Your task to perform on an android device: add a contact Image 0: 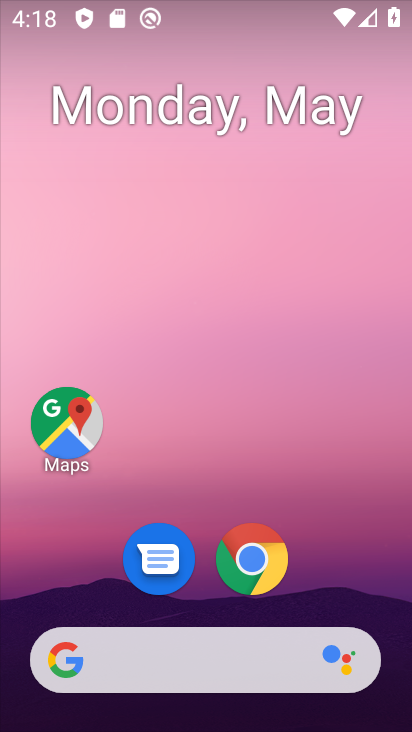
Step 0: drag from (360, 421) to (394, 2)
Your task to perform on an android device: add a contact Image 1: 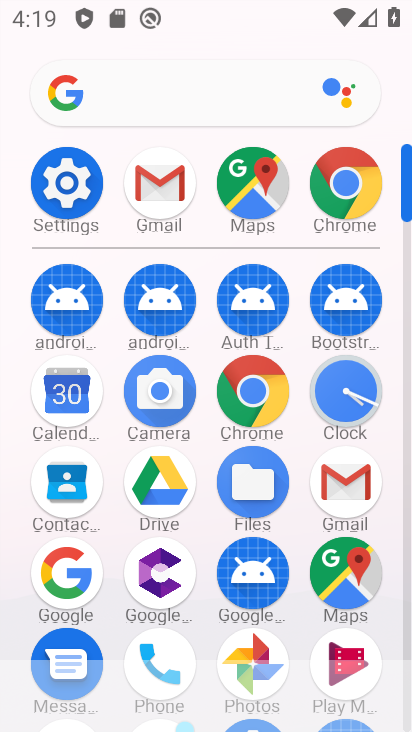
Step 1: click (61, 488)
Your task to perform on an android device: add a contact Image 2: 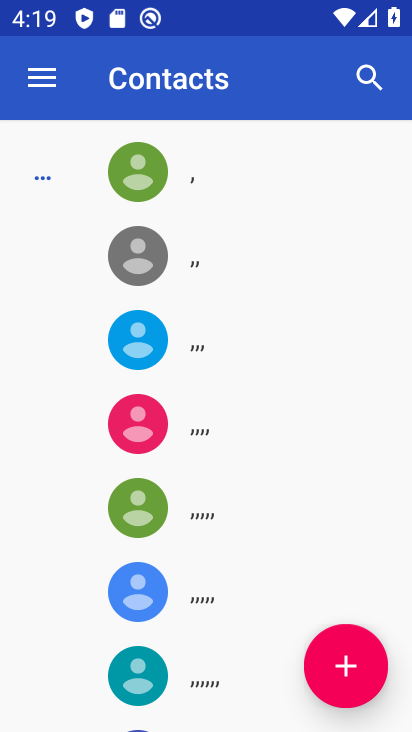
Step 2: click (357, 684)
Your task to perform on an android device: add a contact Image 3: 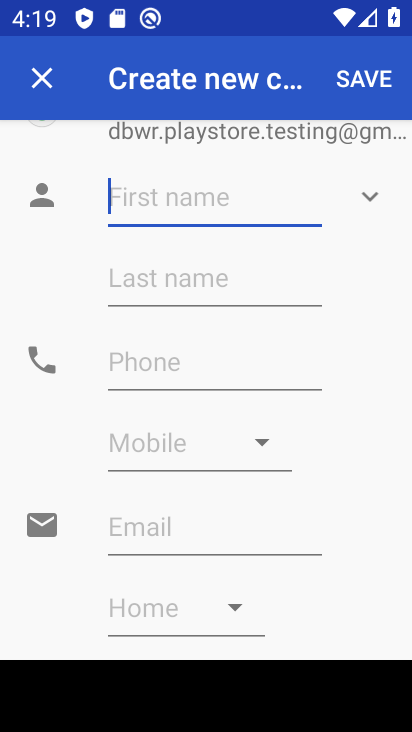
Step 3: type "jhfyjdthdh"
Your task to perform on an android device: add a contact Image 4: 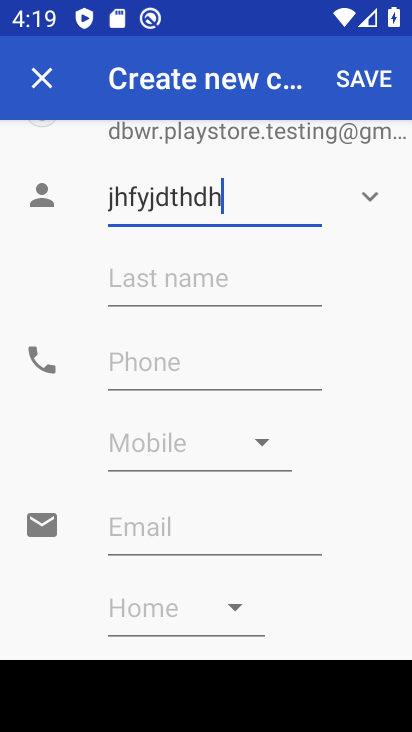
Step 4: click (165, 374)
Your task to perform on an android device: add a contact Image 5: 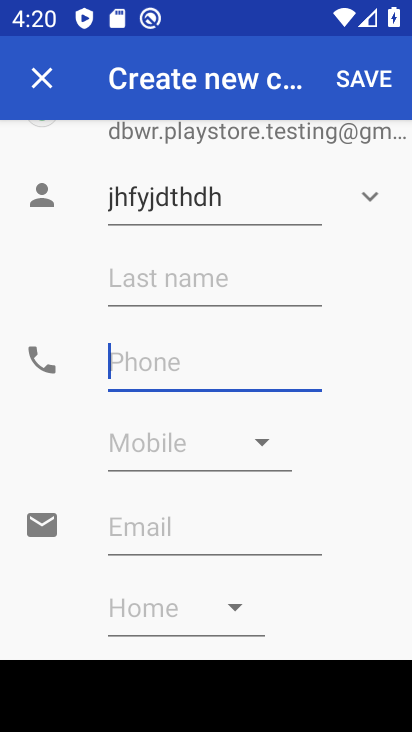
Step 5: type "98765566788"
Your task to perform on an android device: add a contact Image 6: 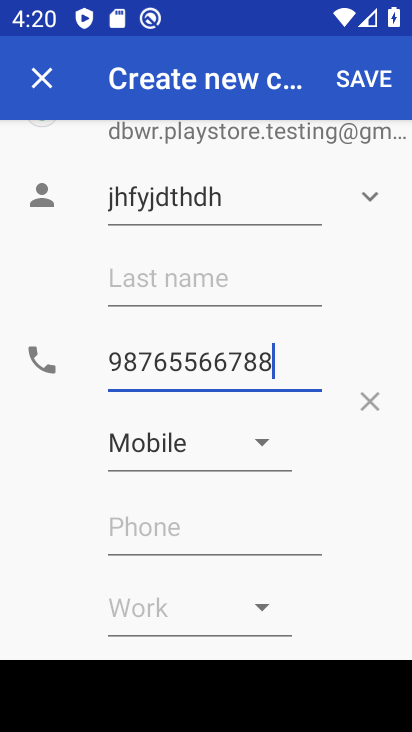
Step 6: click (365, 80)
Your task to perform on an android device: add a contact Image 7: 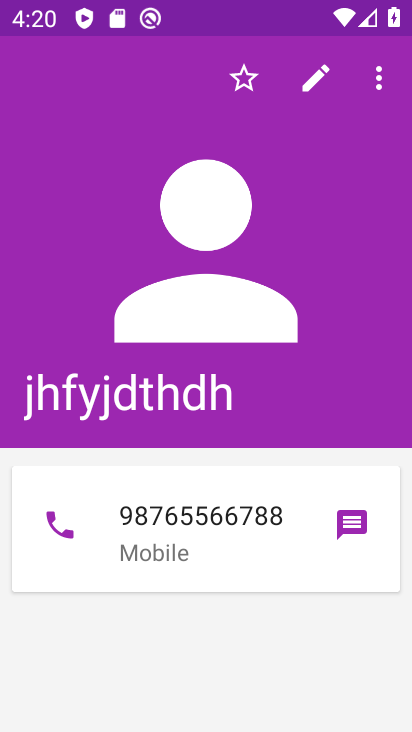
Step 7: task complete